Your task to perform on an android device: show emergency info Image 0: 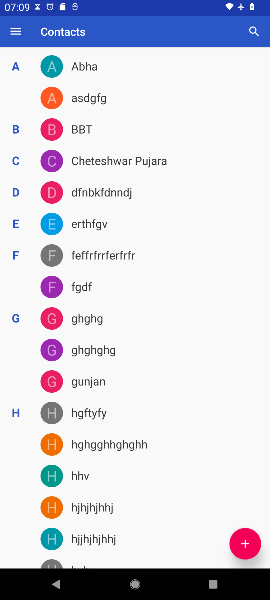
Step 0: press home button
Your task to perform on an android device: show emergency info Image 1: 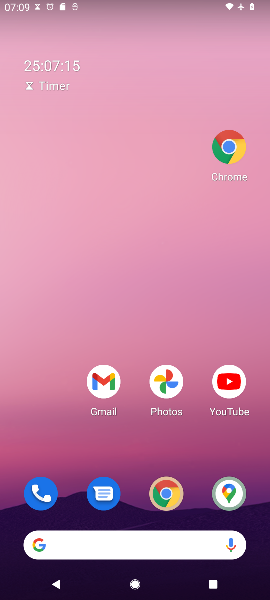
Step 1: drag from (36, 415) to (233, 3)
Your task to perform on an android device: show emergency info Image 2: 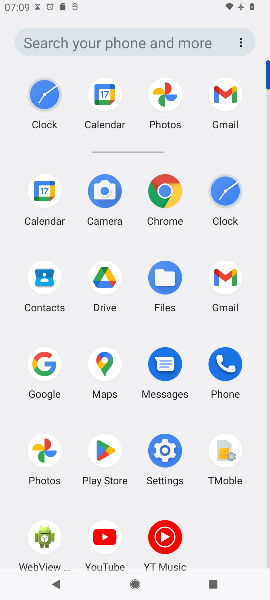
Step 2: click (174, 450)
Your task to perform on an android device: show emergency info Image 3: 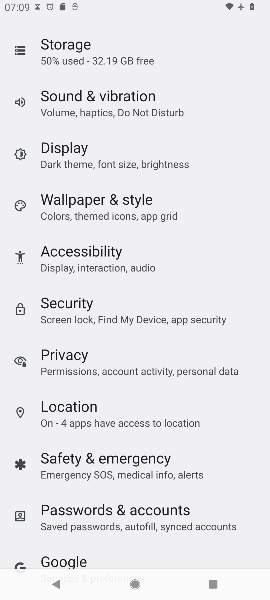
Step 3: drag from (145, 547) to (129, 211)
Your task to perform on an android device: show emergency info Image 4: 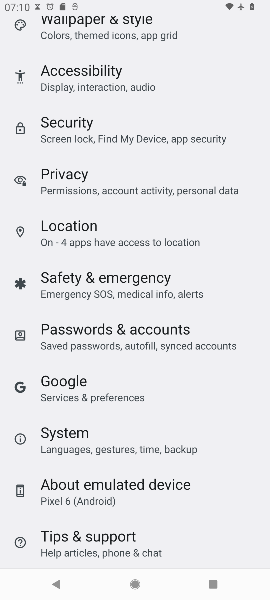
Step 4: click (111, 484)
Your task to perform on an android device: show emergency info Image 5: 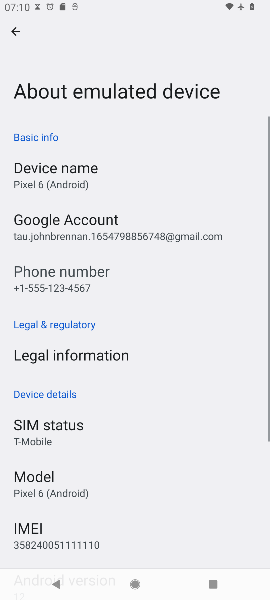
Step 5: task complete